Your task to perform on an android device: What's the weather going to be this weekend? Image 0: 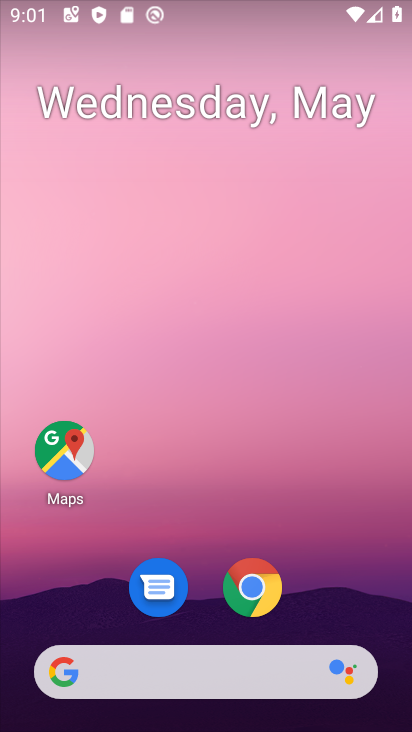
Step 0: drag from (210, 728) to (162, 108)
Your task to perform on an android device: What's the weather going to be this weekend? Image 1: 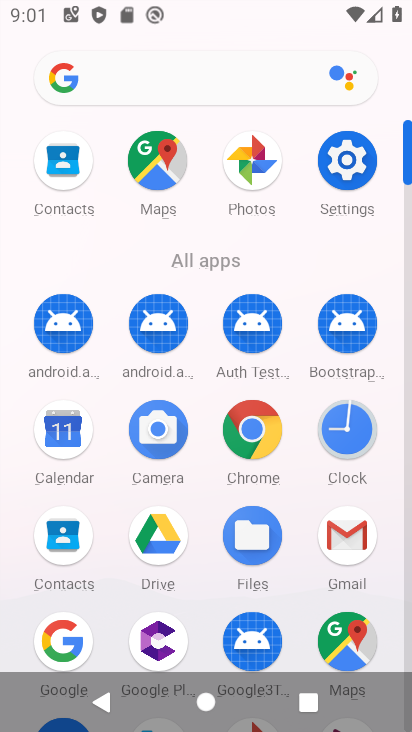
Step 1: click (66, 642)
Your task to perform on an android device: What's the weather going to be this weekend? Image 2: 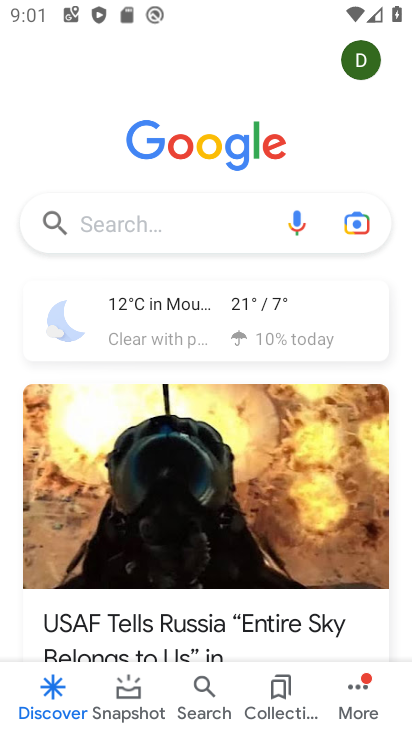
Step 2: click (162, 302)
Your task to perform on an android device: What's the weather going to be this weekend? Image 3: 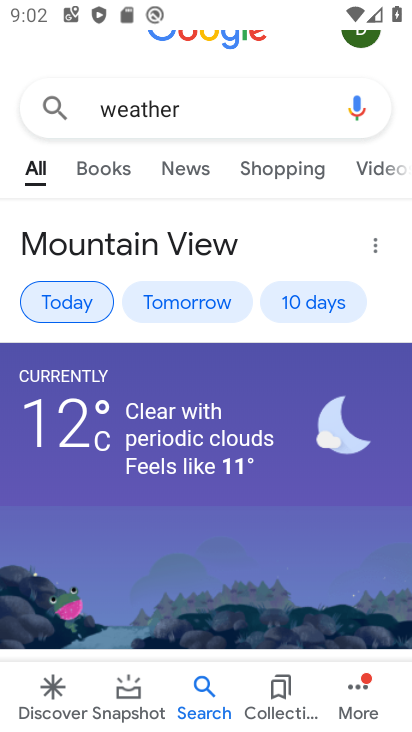
Step 3: click (291, 303)
Your task to perform on an android device: What's the weather going to be this weekend? Image 4: 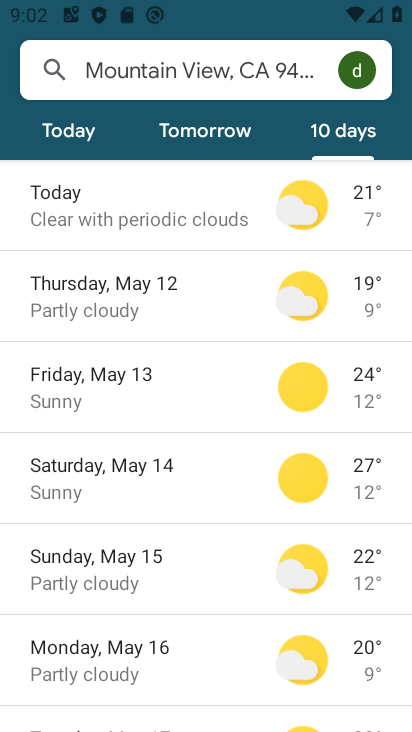
Step 4: task complete